Your task to perform on an android device: Find coffee shops on Maps Image 0: 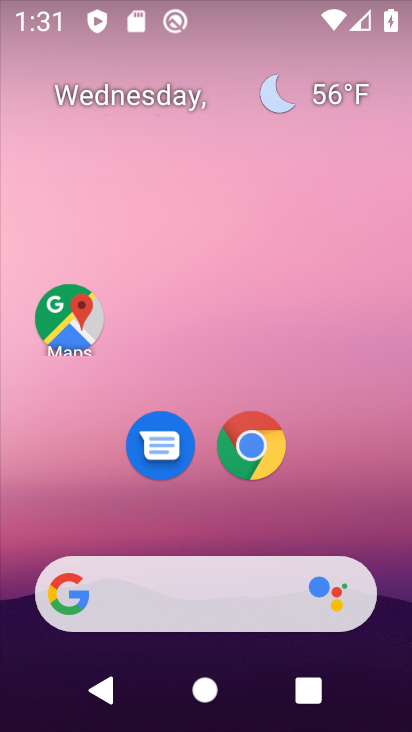
Step 0: click (43, 317)
Your task to perform on an android device: Find coffee shops on Maps Image 1: 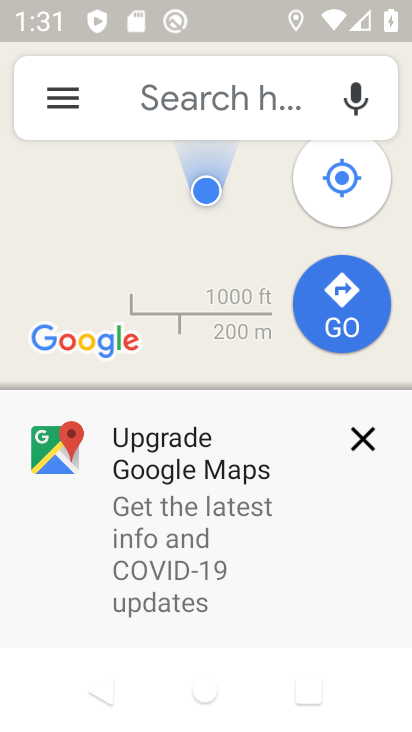
Step 1: click (182, 118)
Your task to perform on an android device: Find coffee shops on Maps Image 2: 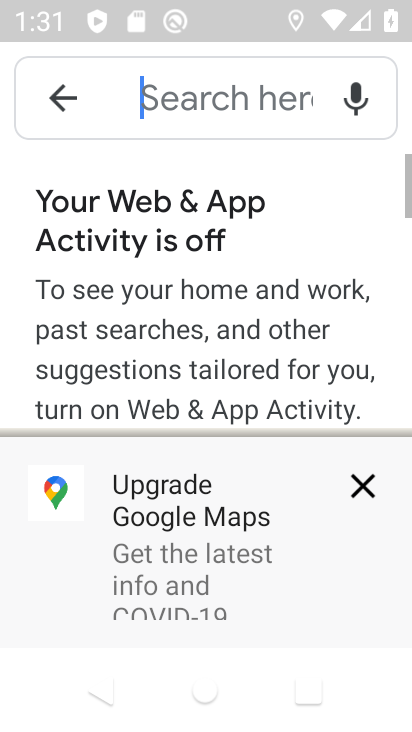
Step 2: click (366, 480)
Your task to perform on an android device: Find coffee shops on Maps Image 3: 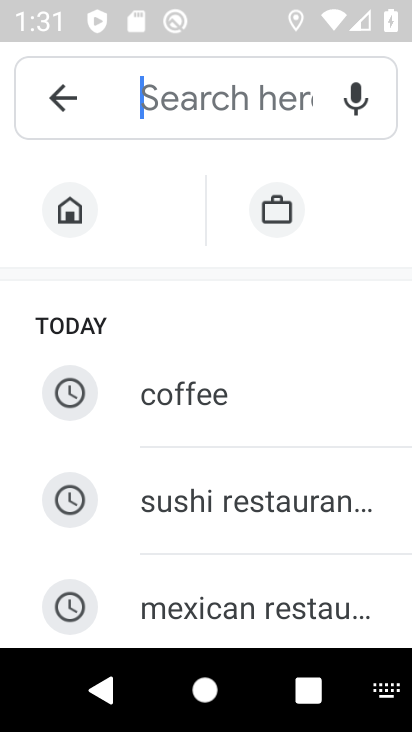
Step 3: click (203, 426)
Your task to perform on an android device: Find coffee shops on Maps Image 4: 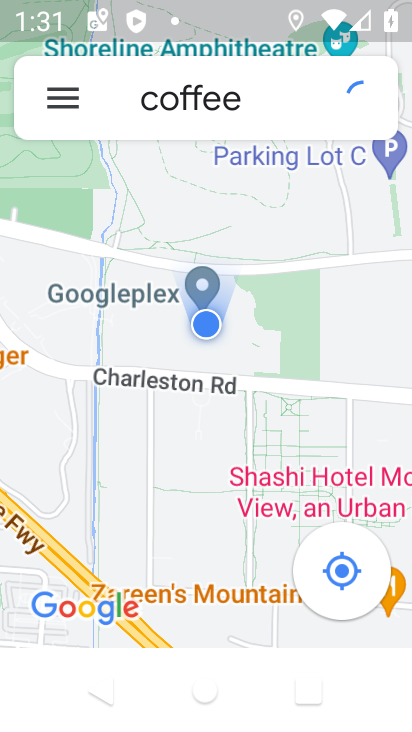
Step 4: task complete